Your task to perform on an android device: Open Google Maps and go to "Timeline" Image 0: 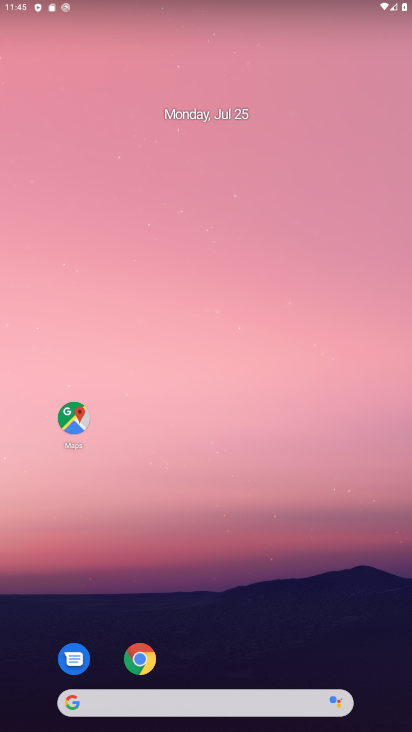
Step 0: drag from (246, 646) to (191, 121)
Your task to perform on an android device: Open Google Maps and go to "Timeline" Image 1: 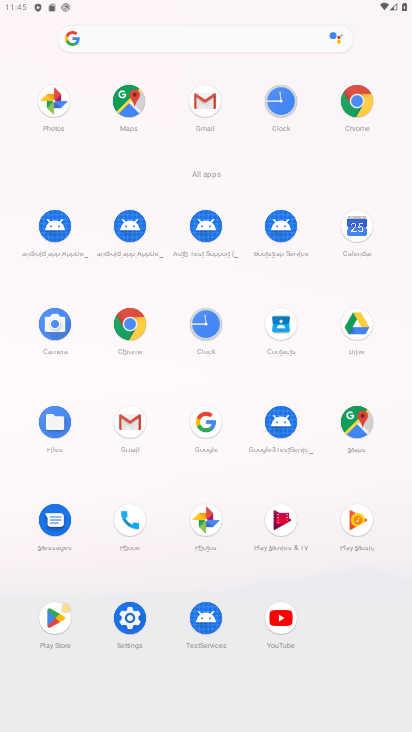
Step 1: click (122, 98)
Your task to perform on an android device: Open Google Maps and go to "Timeline" Image 2: 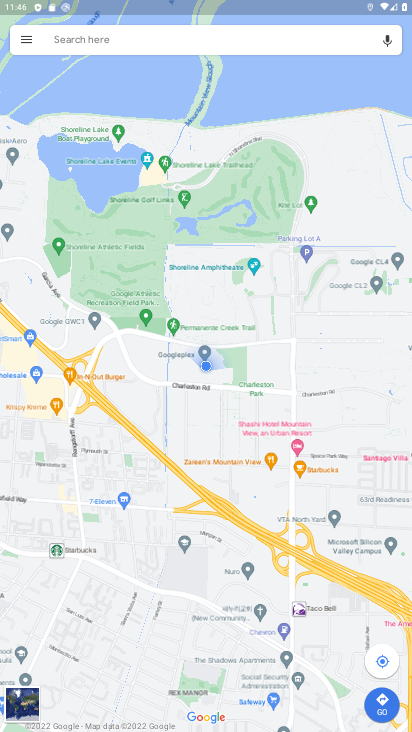
Step 2: click (24, 39)
Your task to perform on an android device: Open Google Maps and go to "Timeline" Image 3: 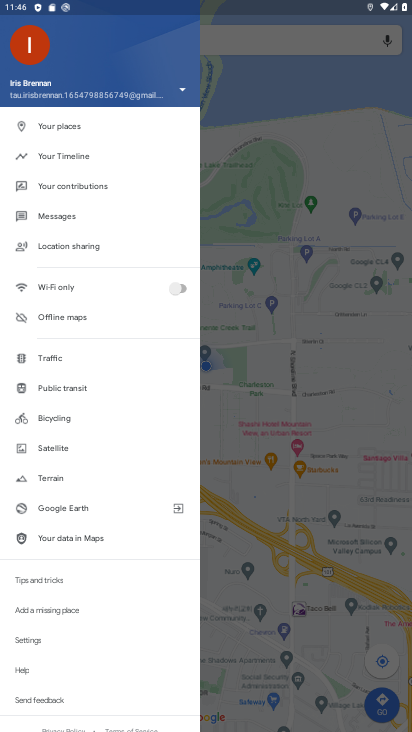
Step 3: click (65, 157)
Your task to perform on an android device: Open Google Maps and go to "Timeline" Image 4: 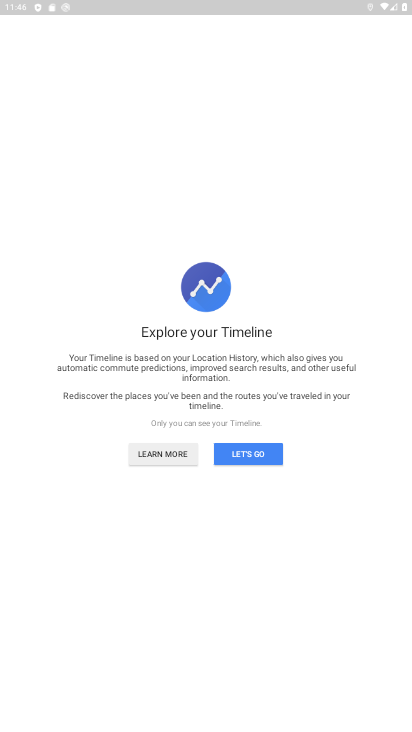
Step 4: click (254, 455)
Your task to perform on an android device: Open Google Maps and go to "Timeline" Image 5: 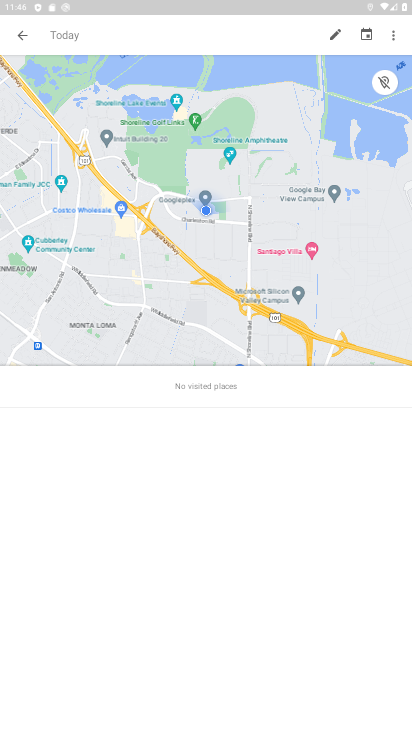
Step 5: task complete